Your task to perform on an android device: Check the news Image 0: 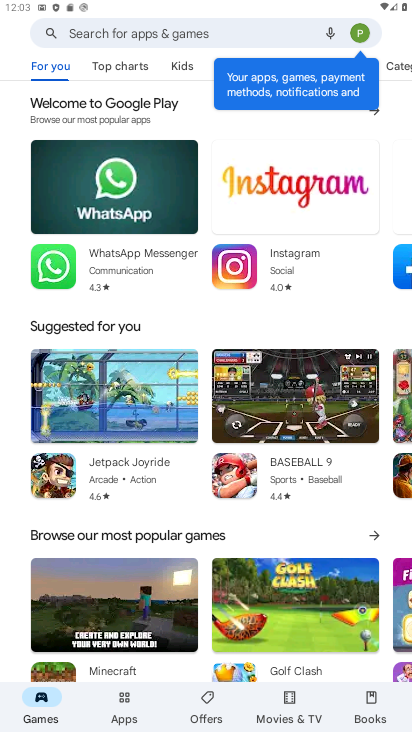
Step 0: press home button
Your task to perform on an android device: Check the news Image 1: 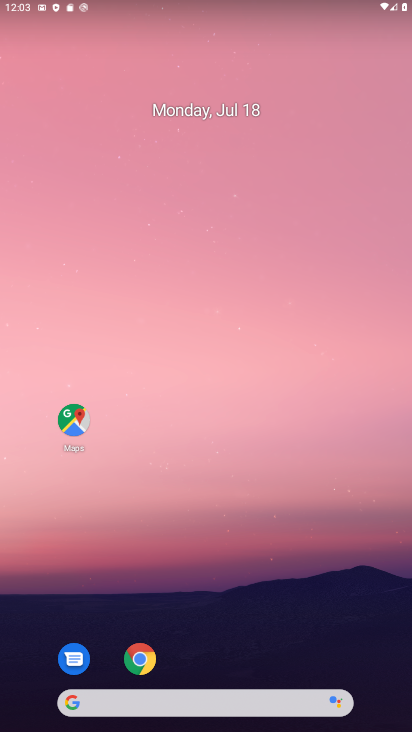
Step 1: drag from (214, 388) to (246, 246)
Your task to perform on an android device: Check the news Image 2: 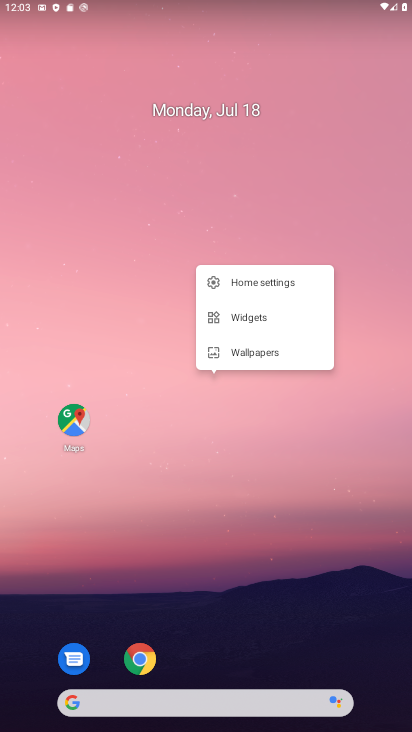
Step 2: click (187, 702)
Your task to perform on an android device: Check the news Image 3: 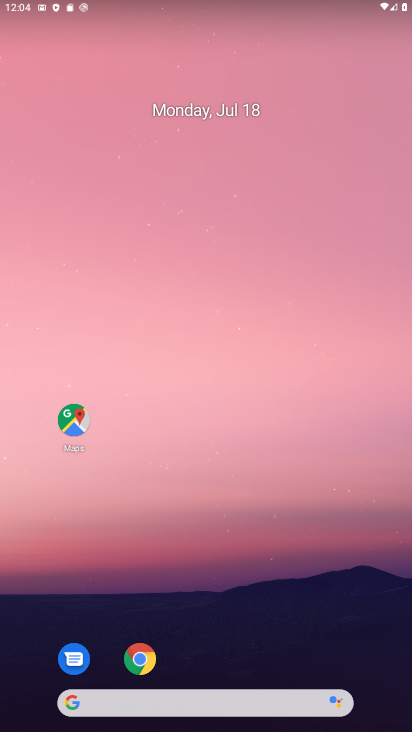
Step 3: click (187, 702)
Your task to perform on an android device: Check the news Image 4: 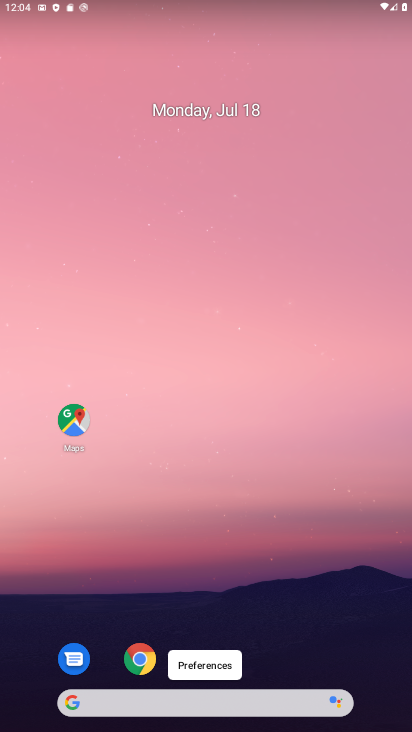
Step 4: click (188, 701)
Your task to perform on an android device: Check the news Image 5: 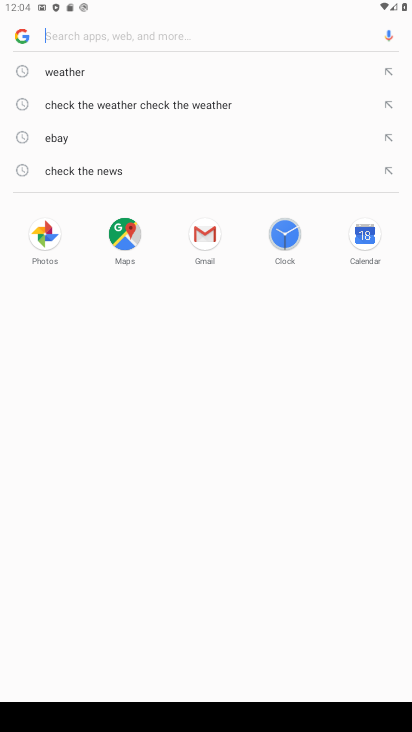
Step 5: type "news"
Your task to perform on an android device: Check the news Image 6: 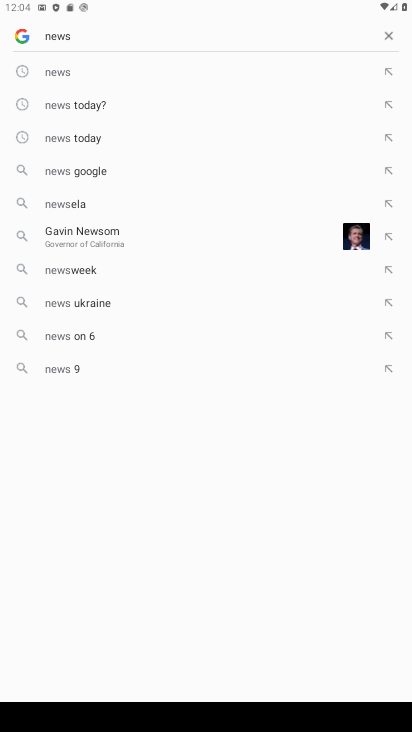
Step 6: click (60, 73)
Your task to perform on an android device: Check the news Image 7: 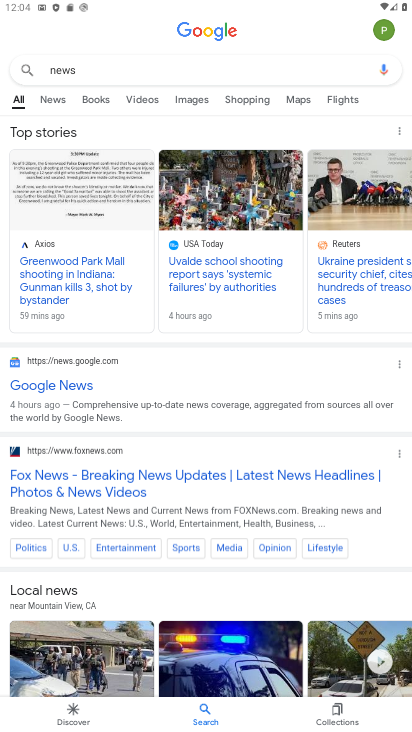
Step 7: task complete